Your task to perform on an android device: Is it going to rain this weekend? Image 0: 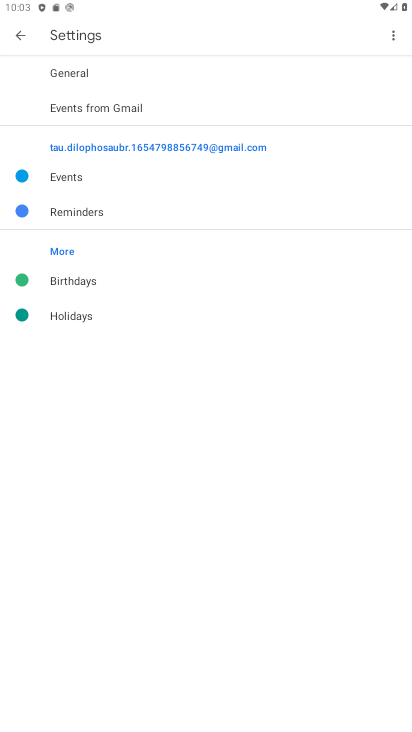
Step 0: press home button
Your task to perform on an android device: Is it going to rain this weekend? Image 1: 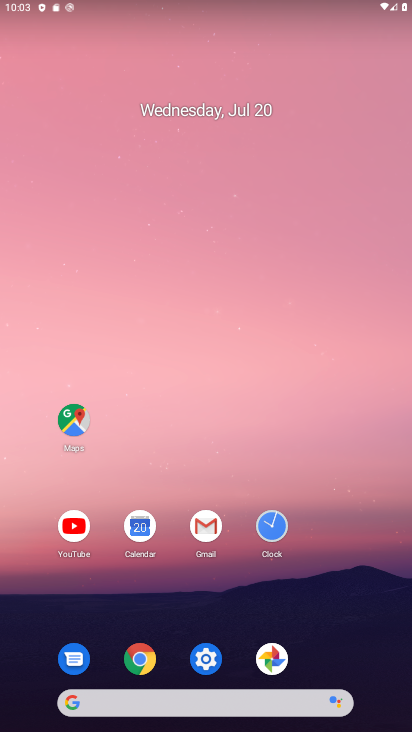
Step 1: click (186, 699)
Your task to perform on an android device: Is it going to rain this weekend? Image 2: 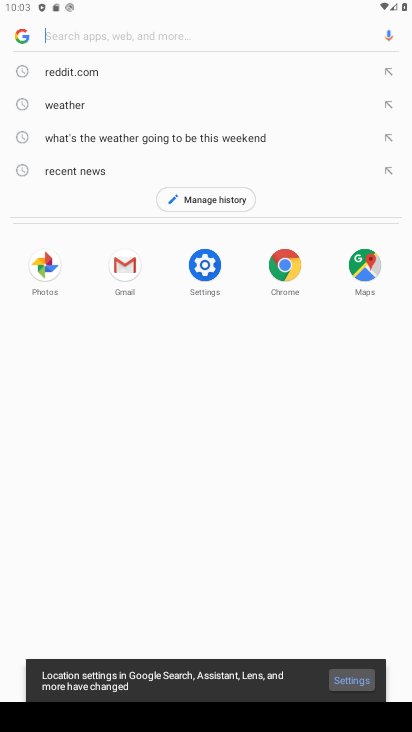
Step 2: click (95, 134)
Your task to perform on an android device: Is it going to rain this weekend? Image 3: 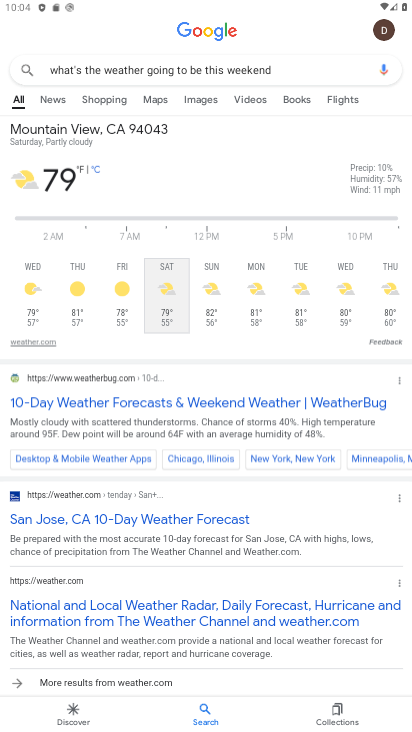
Step 3: task complete